Your task to perform on an android device: Open notification settings Image 0: 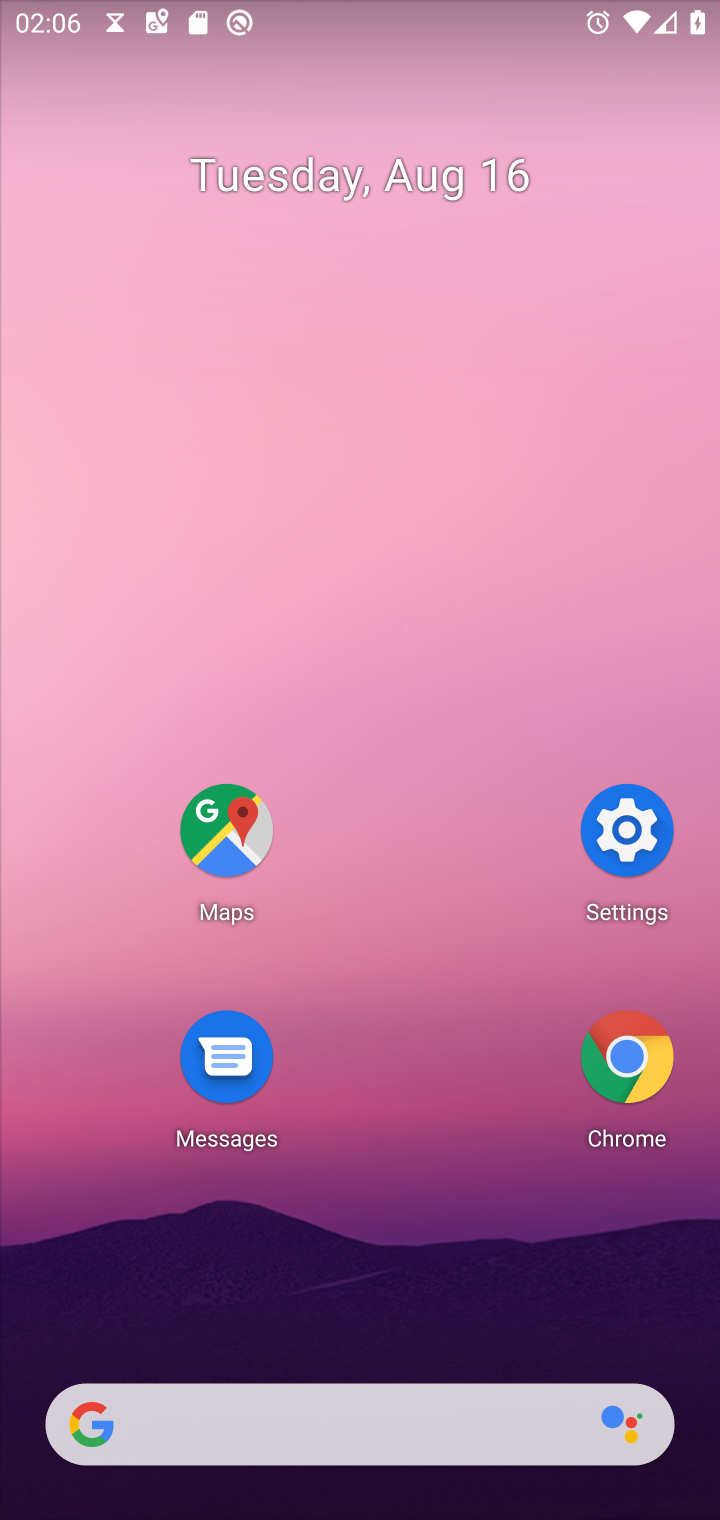
Step 0: press home button
Your task to perform on an android device: Open notification settings Image 1: 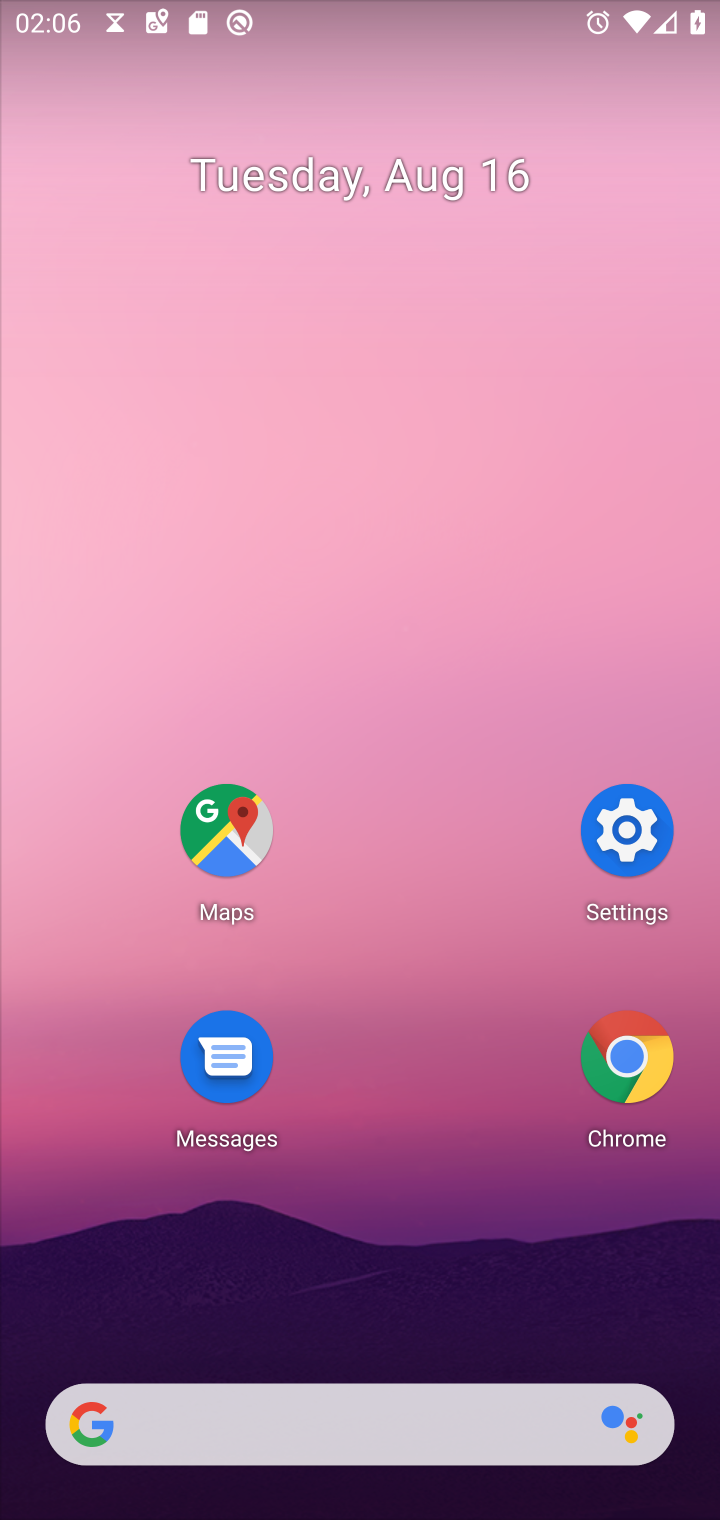
Step 1: click (601, 838)
Your task to perform on an android device: Open notification settings Image 2: 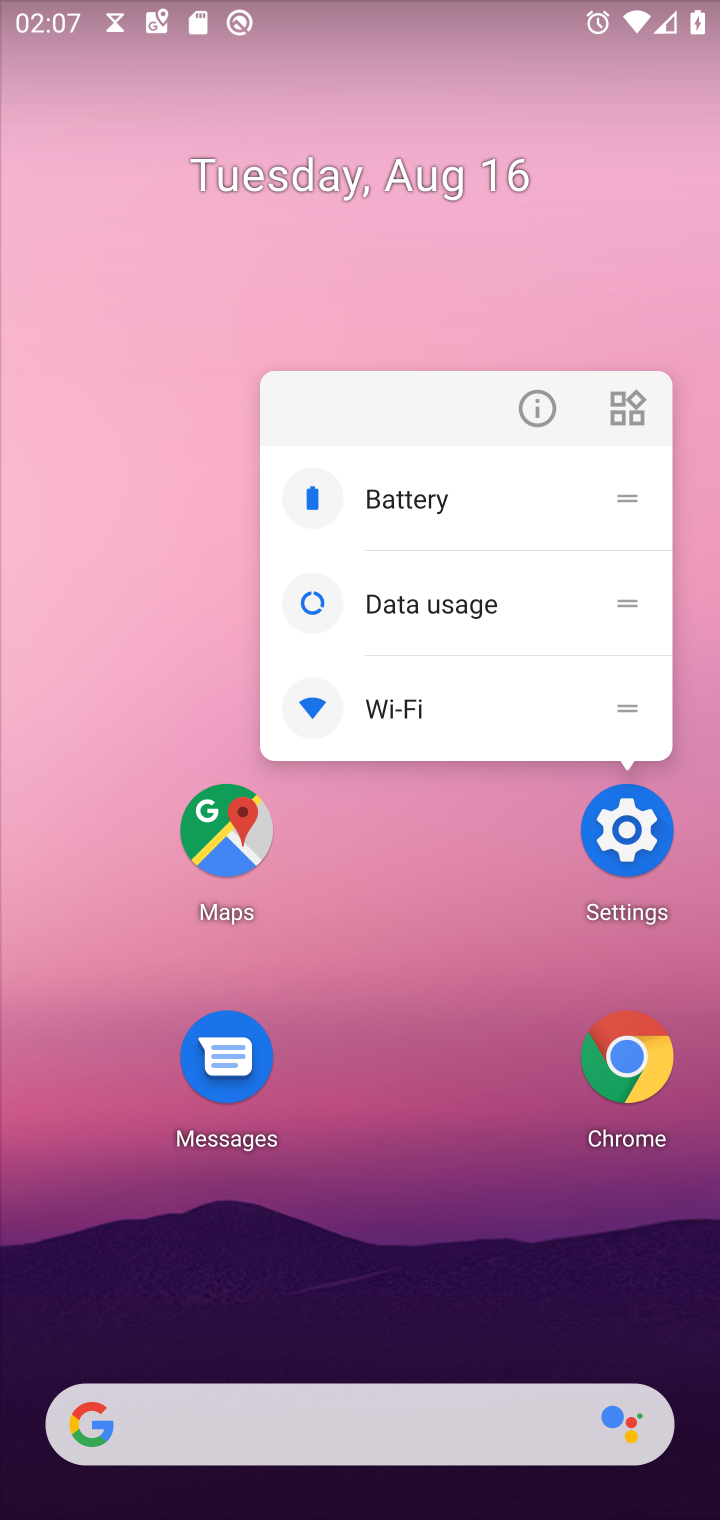
Step 2: click (629, 853)
Your task to perform on an android device: Open notification settings Image 3: 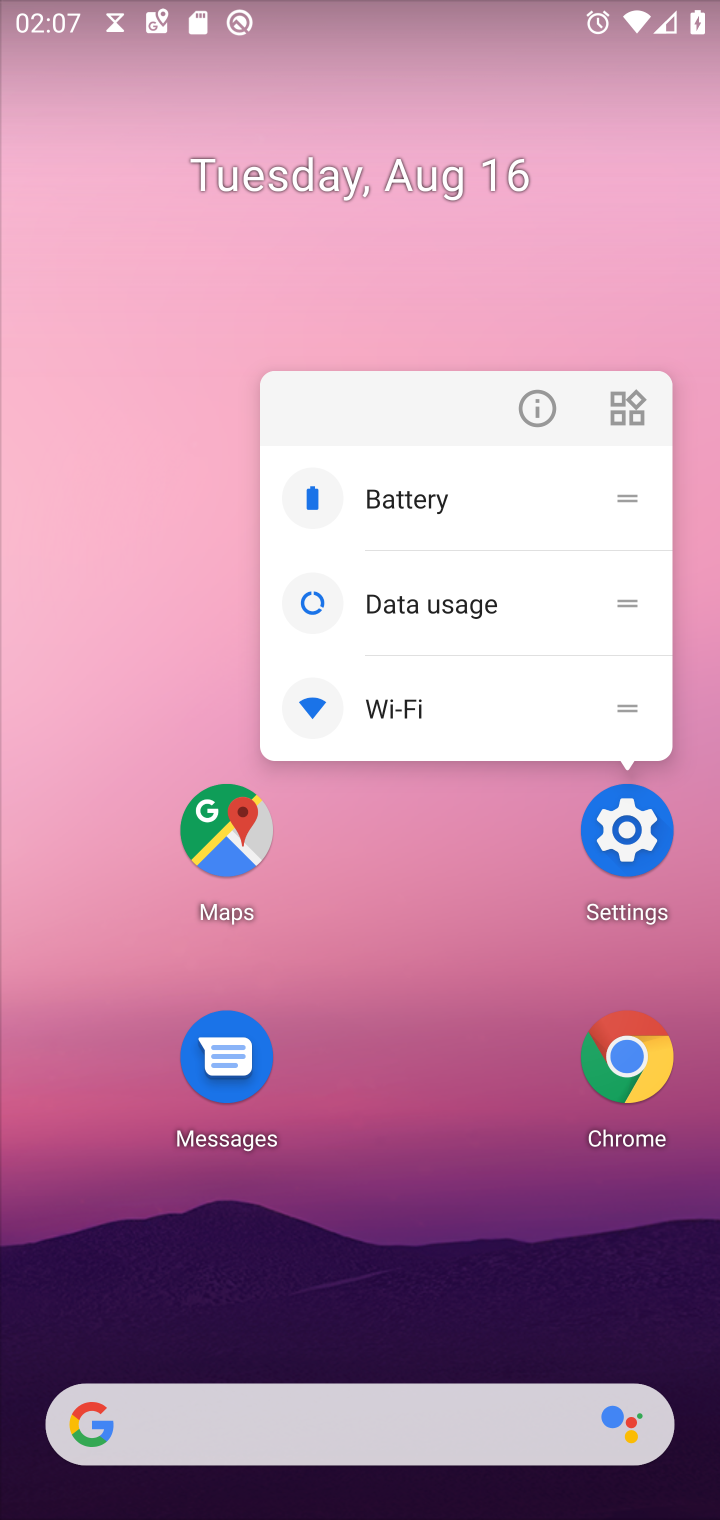
Step 3: click (621, 827)
Your task to perform on an android device: Open notification settings Image 4: 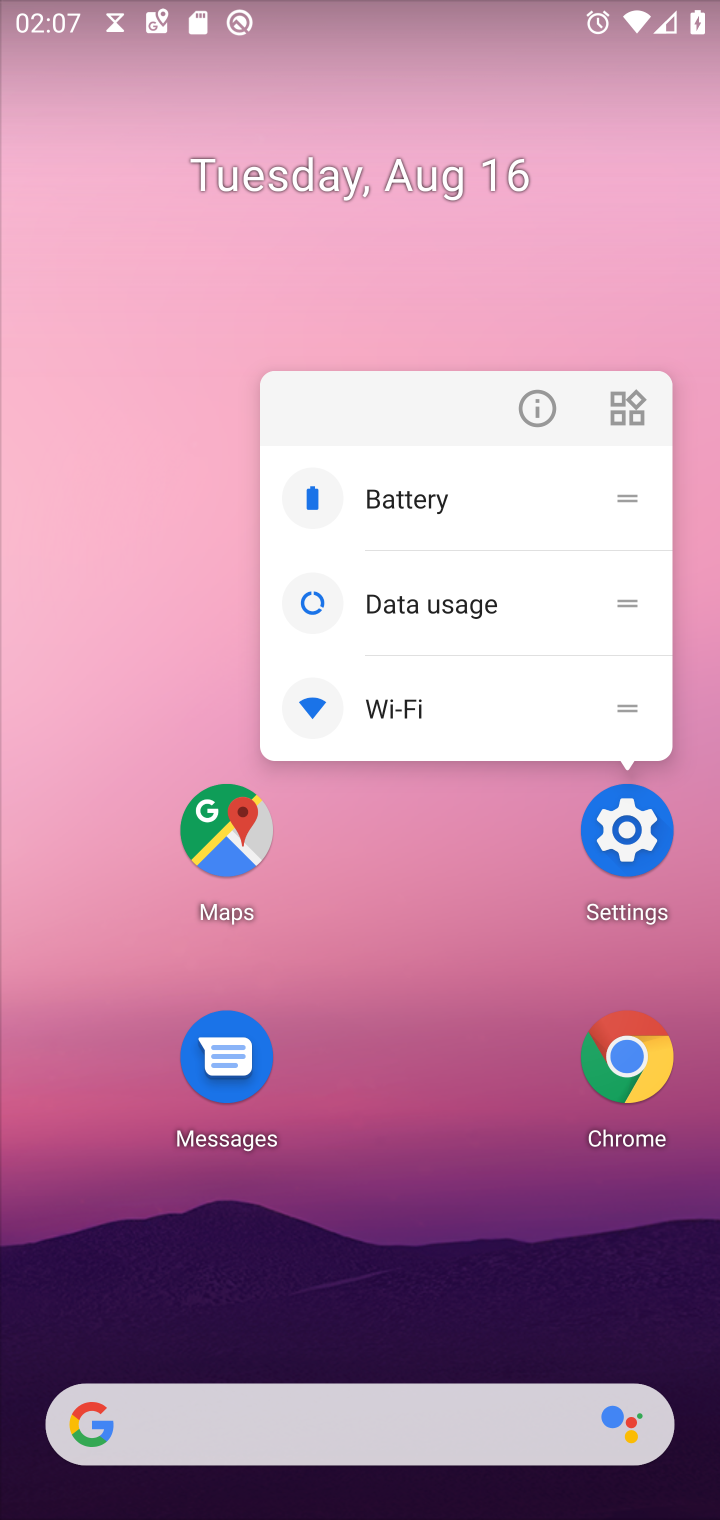
Step 4: click (621, 828)
Your task to perform on an android device: Open notification settings Image 5: 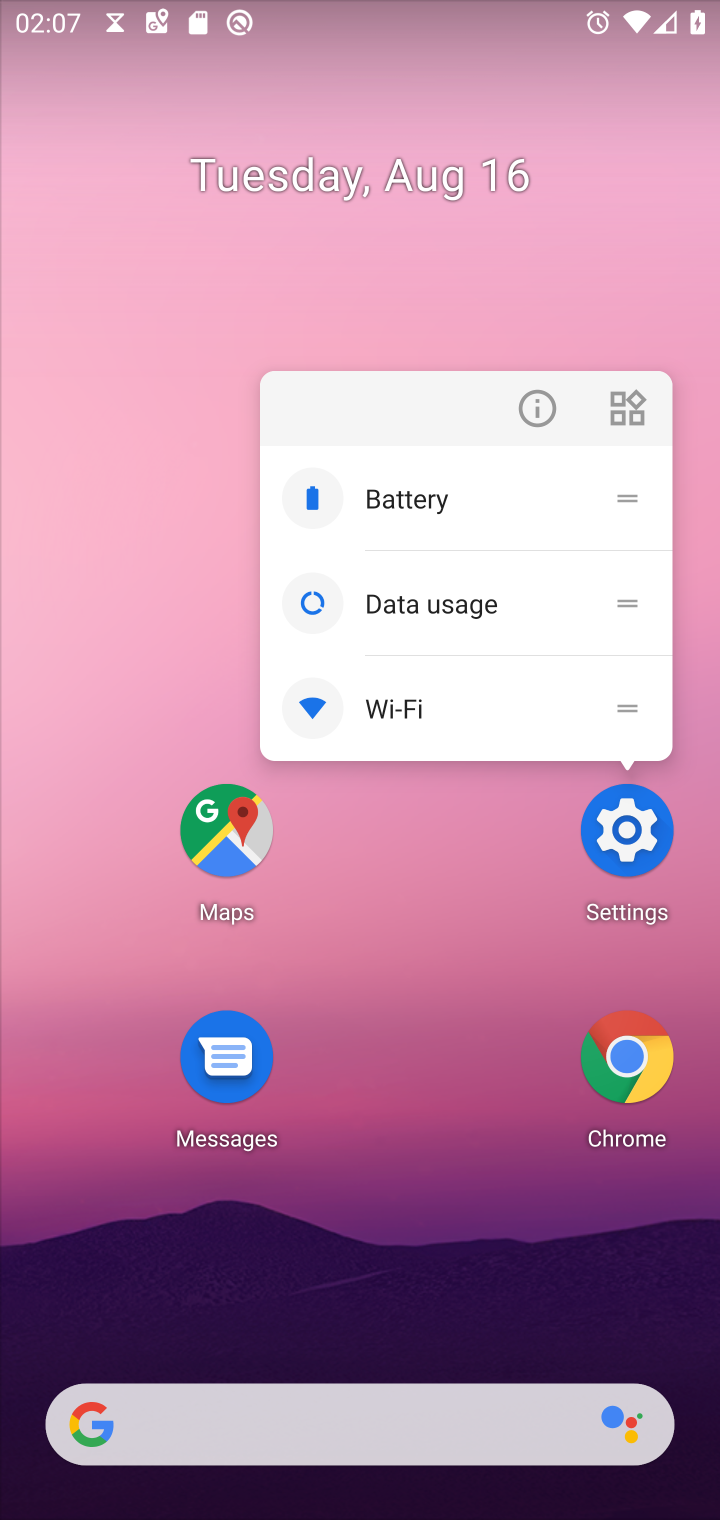
Step 5: click (623, 832)
Your task to perform on an android device: Open notification settings Image 6: 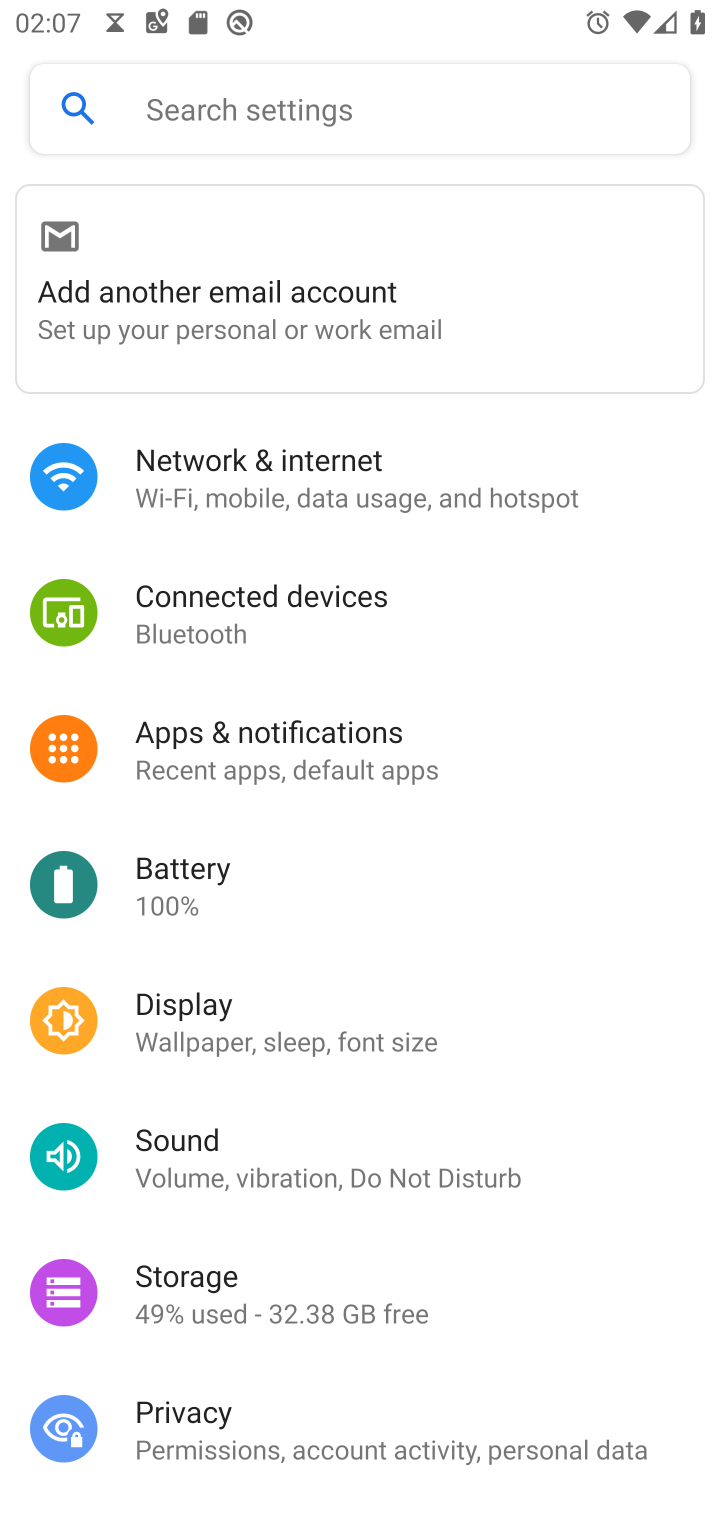
Step 6: click (273, 750)
Your task to perform on an android device: Open notification settings Image 7: 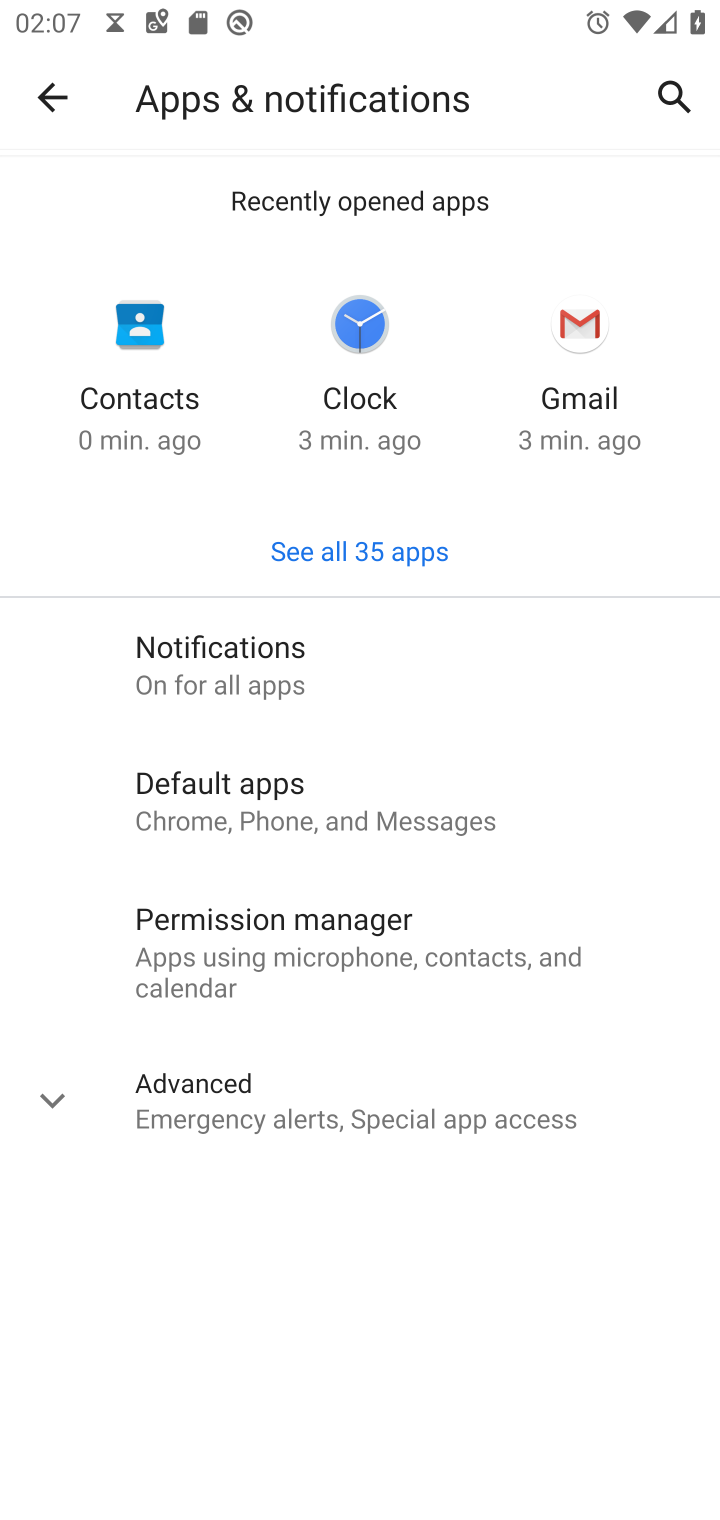
Step 7: click (267, 682)
Your task to perform on an android device: Open notification settings Image 8: 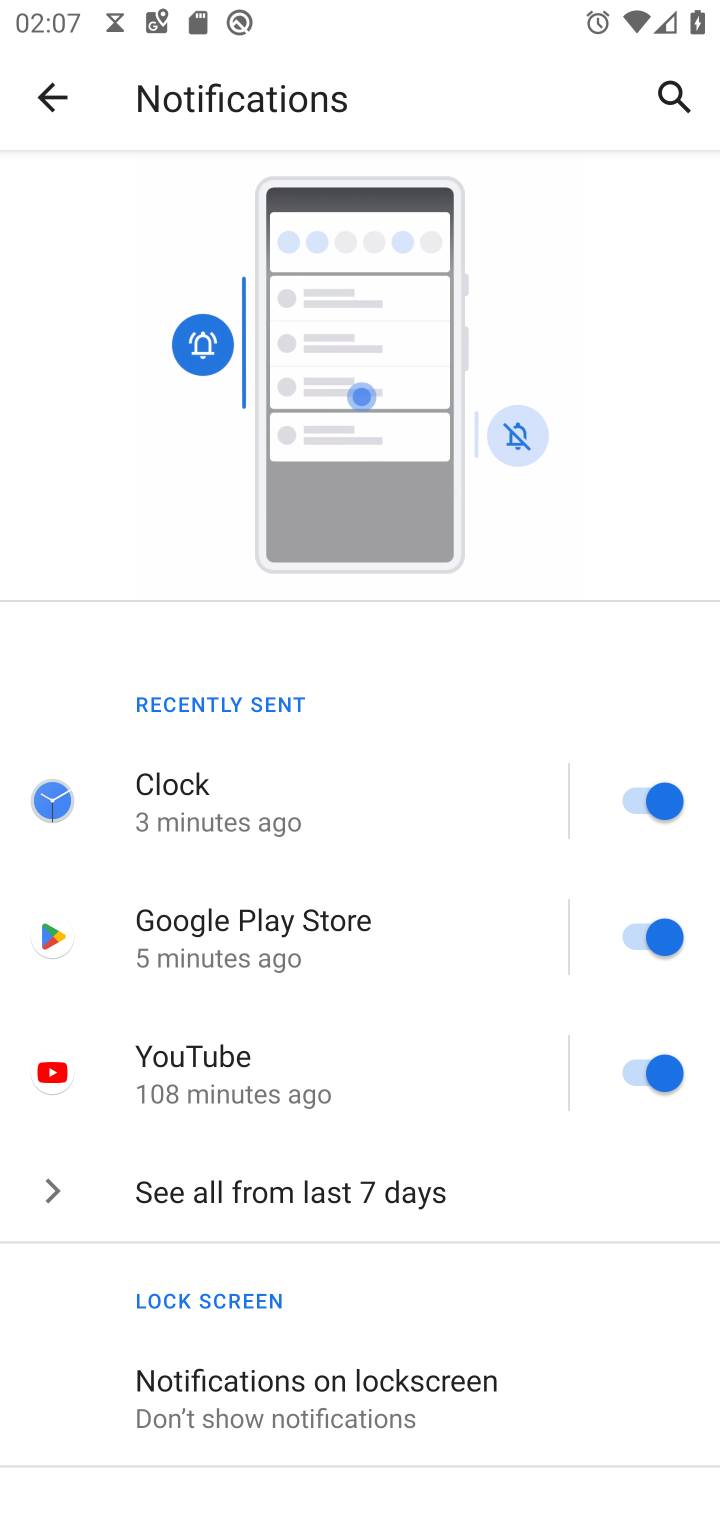
Step 8: task complete